Your task to perform on an android device: toggle data saver in the chrome app Image 0: 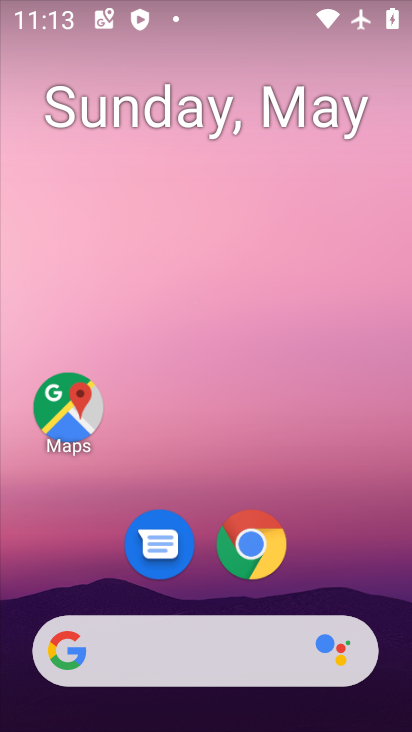
Step 0: drag from (335, 548) to (328, 260)
Your task to perform on an android device: toggle data saver in the chrome app Image 1: 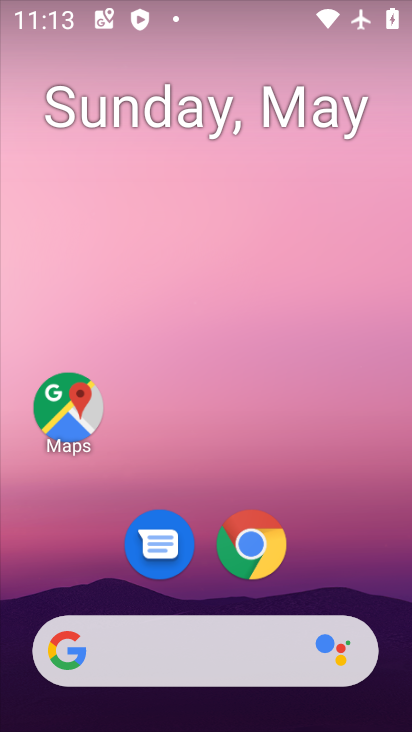
Step 1: drag from (335, 597) to (345, 304)
Your task to perform on an android device: toggle data saver in the chrome app Image 2: 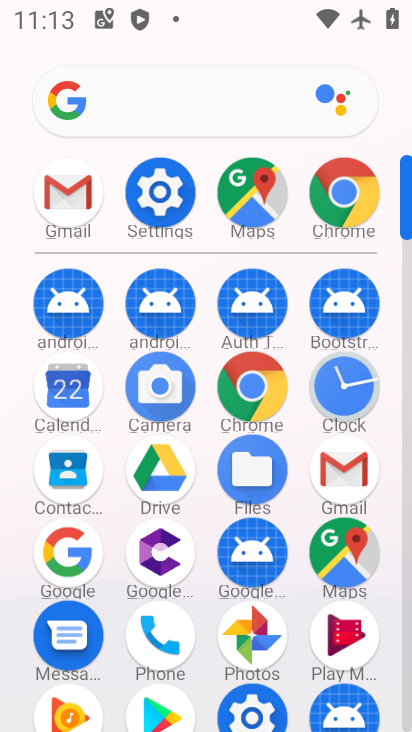
Step 2: click (155, 184)
Your task to perform on an android device: toggle data saver in the chrome app Image 3: 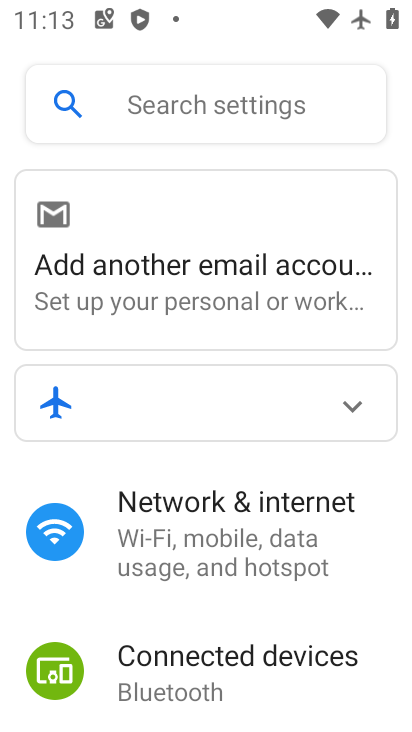
Step 3: press home button
Your task to perform on an android device: toggle data saver in the chrome app Image 4: 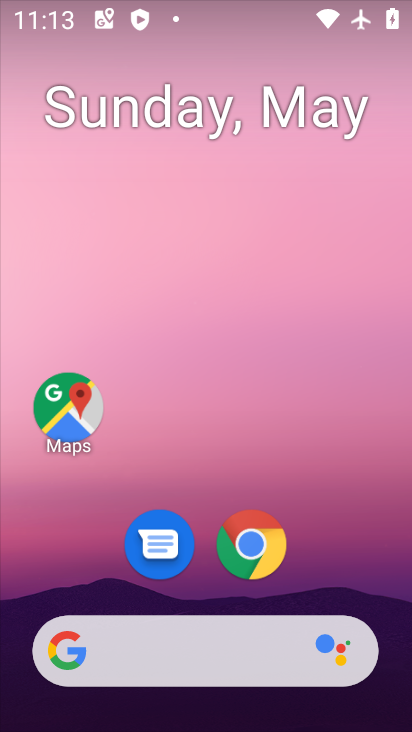
Step 4: click (244, 554)
Your task to perform on an android device: toggle data saver in the chrome app Image 5: 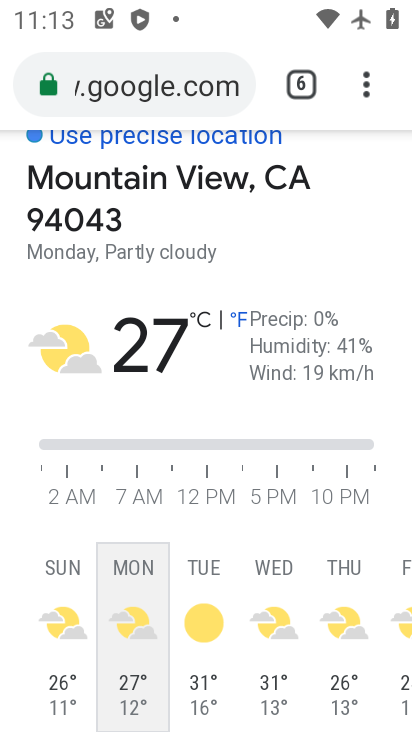
Step 5: click (363, 74)
Your task to perform on an android device: toggle data saver in the chrome app Image 6: 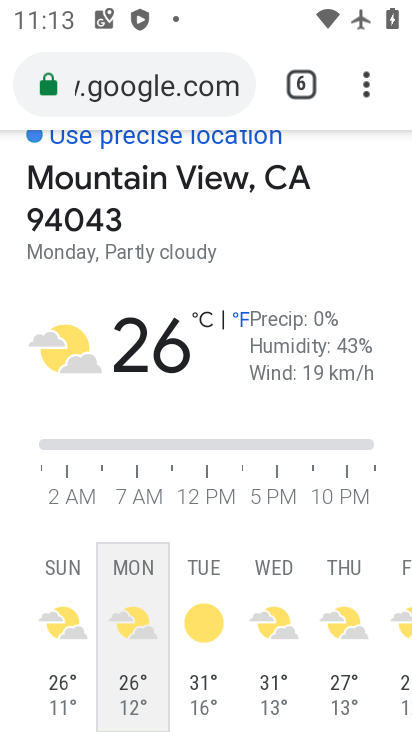
Step 6: click (357, 96)
Your task to perform on an android device: toggle data saver in the chrome app Image 7: 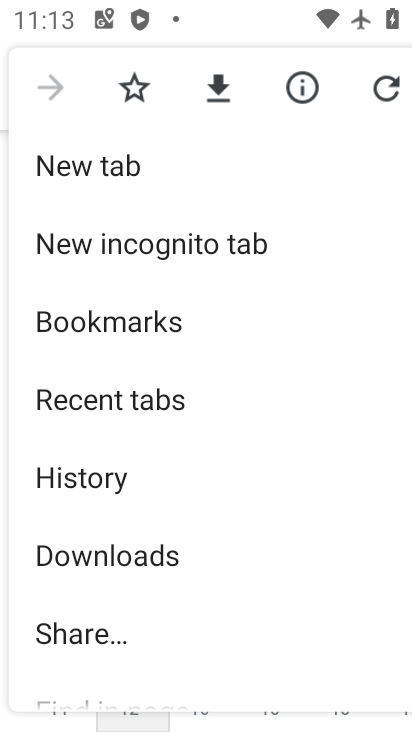
Step 7: drag from (199, 587) to (213, 213)
Your task to perform on an android device: toggle data saver in the chrome app Image 8: 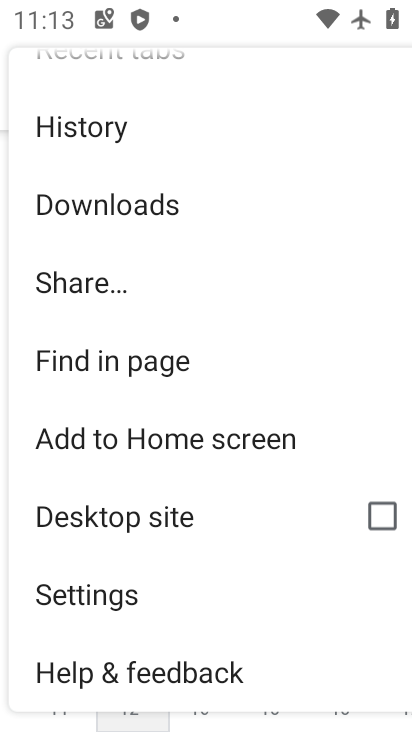
Step 8: click (126, 612)
Your task to perform on an android device: toggle data saver in the chrome app Image 9: 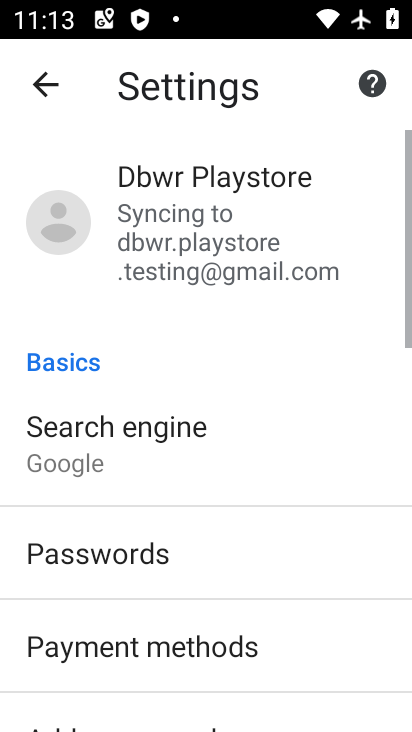
Step 9: drag from (144, 587) to (174, 251)
Your task to perform on an android device: toggle data saver in the chrome app Image 10: 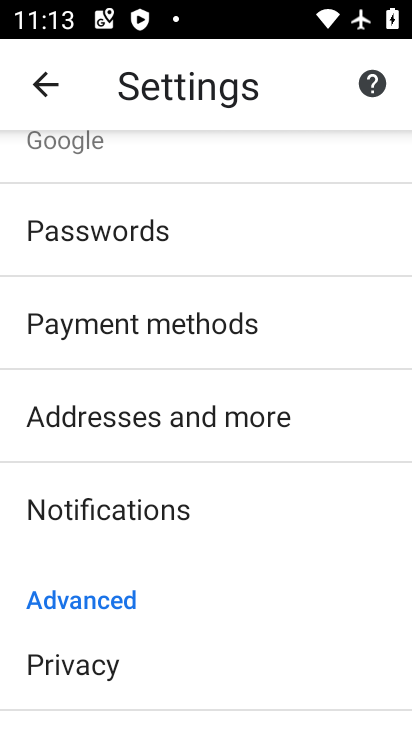
Step 10: drag from (139, 616) to (231, 225)
Your task to perform on an android device: toggle data saver in the chrome app Image 11: 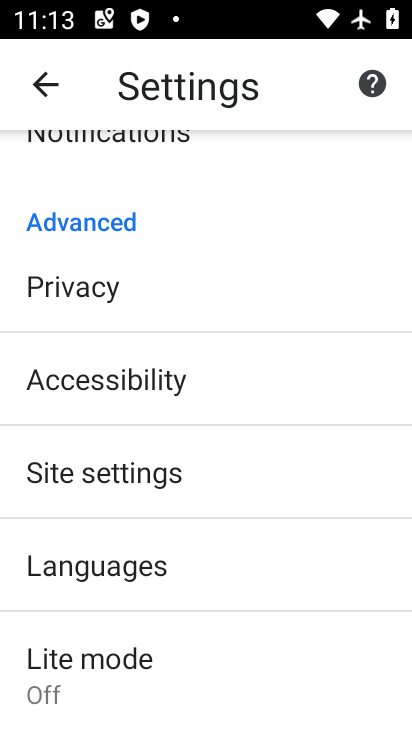
Step 11: click (207, 673)
Your task to perform on an android device: toggle data saver in the chrome app Image 12: 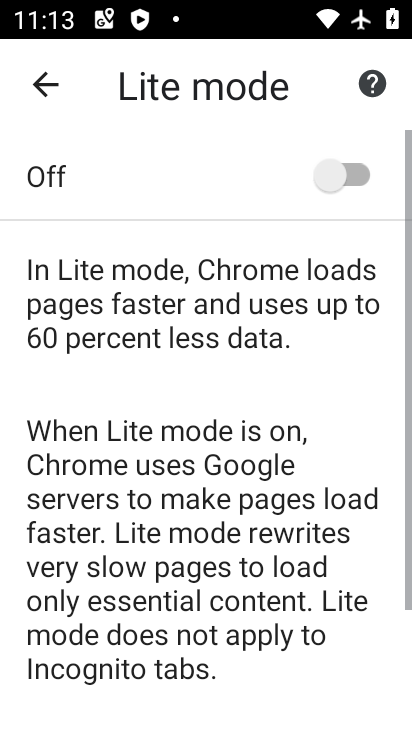
Step 12: click (328, 175)
Your task to perform on an android device: toggle data saver in the chrome app Image 13: 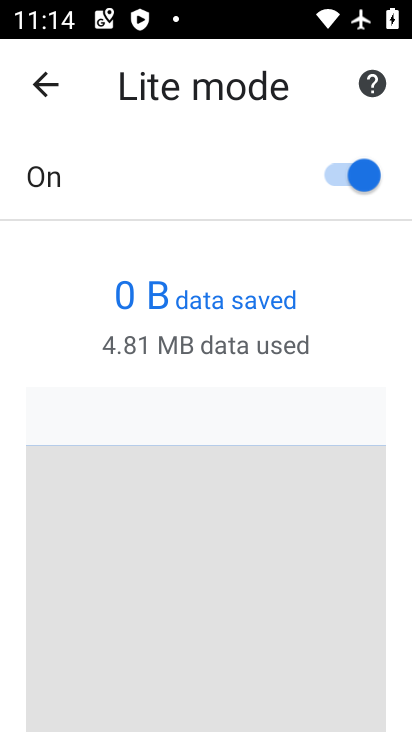
Step 13: task complete